Your task to perform on an android device: Search for Mexican restaurants on Maps Image 0: 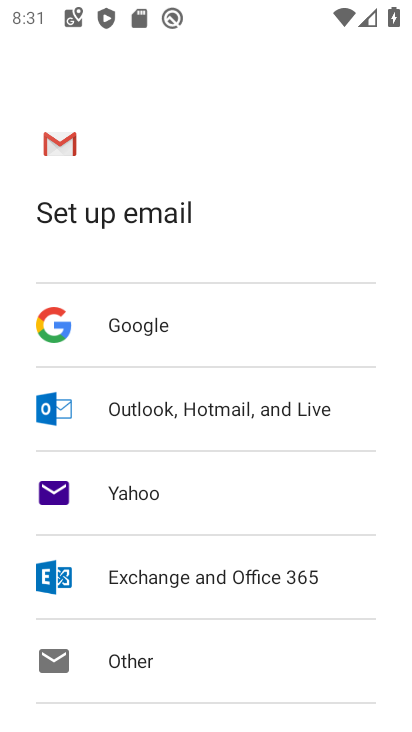
Step 0: press home button
Your task to perform on an android device: Search for Mexican restaurants on Maps Image 1: 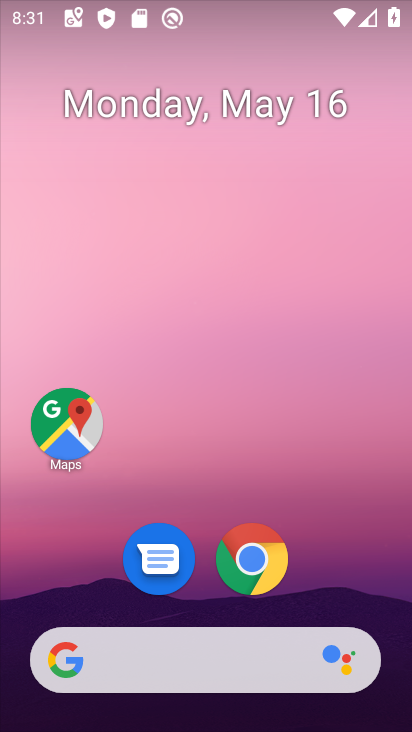
Step 1: drag from (318, 586) to (290, 59)
Your task to perform on an android device: Search for Mexican restaurants on Maps Image 2: 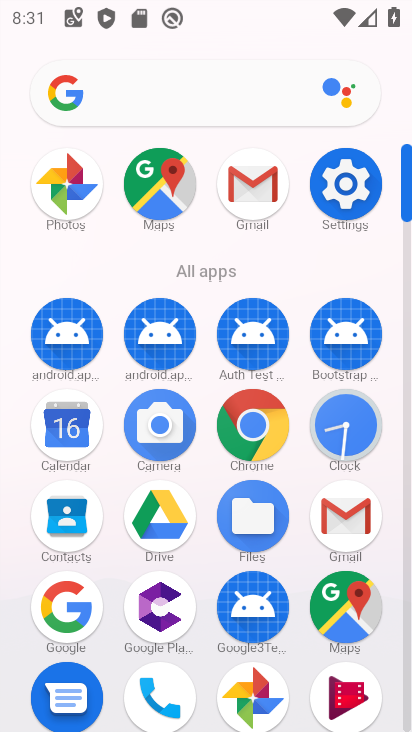
Step 2: click (165, 189)
Your task to perform on an android device: Search for Mexican restaurants on Maps Image 3: 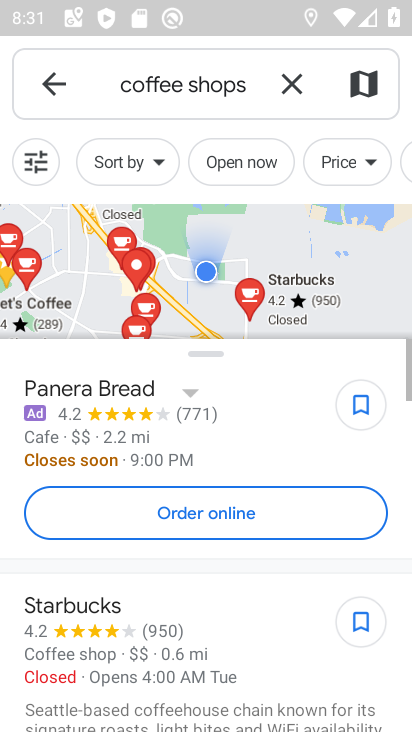
Step 3: click (281, 84)
Your task to perform on an android device: Search for Mexican restaurants on Maps Image 4: 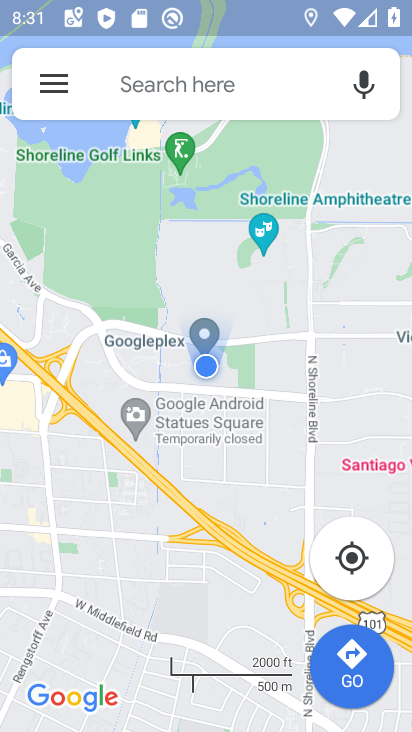
Step 4: click (221, 86)
Your task to perform on an android device: Search for Mexican restaurants on Maps Image 5: 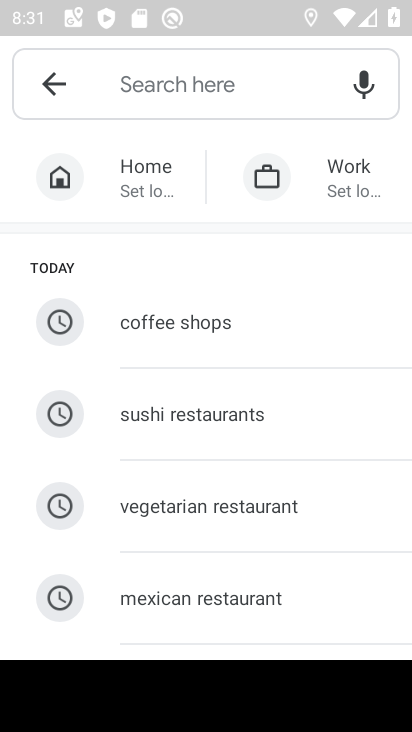
Step 5: type "mexican restaurants"
Your task to perform on an android device: Search for Mexican restaurants on Maps Image 6: 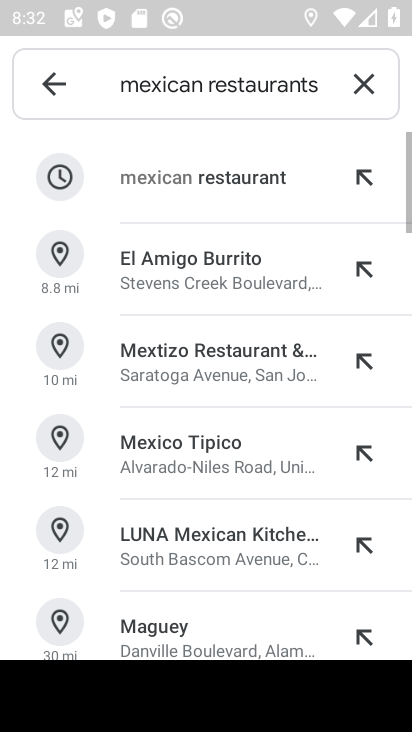
Step 6: click (211, 190)
Your task to perform on an android device: Search for Mexican restaurants on Maps Image 7: 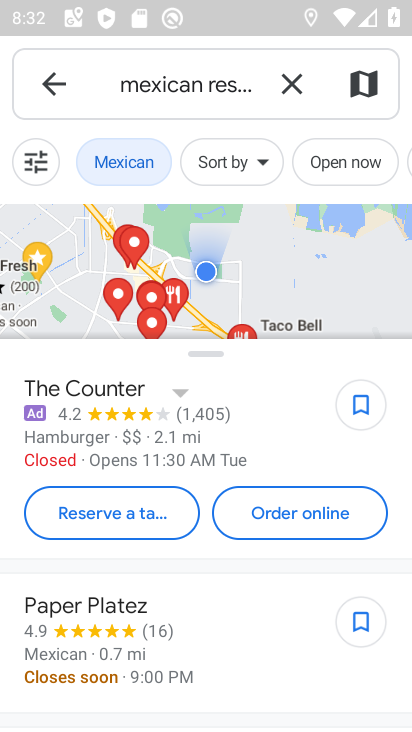
Step 7: task complete